Your task to perform on an android device: What's the weather going to be tomorrow? Image 0: 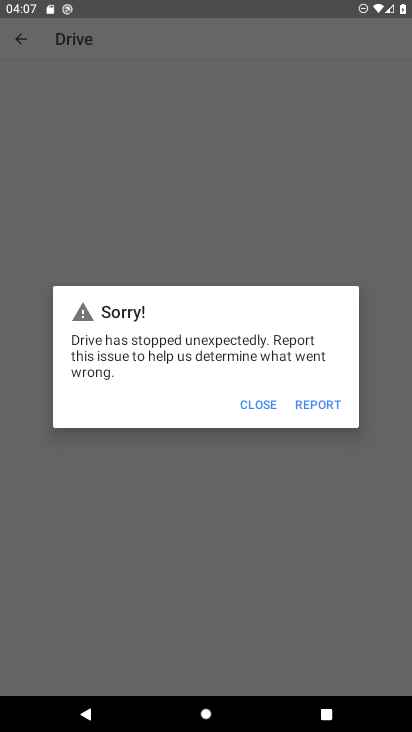
Step 0: press home button
Your task to perform on an android device: What's the weather going to be tomorrow? Image 1: 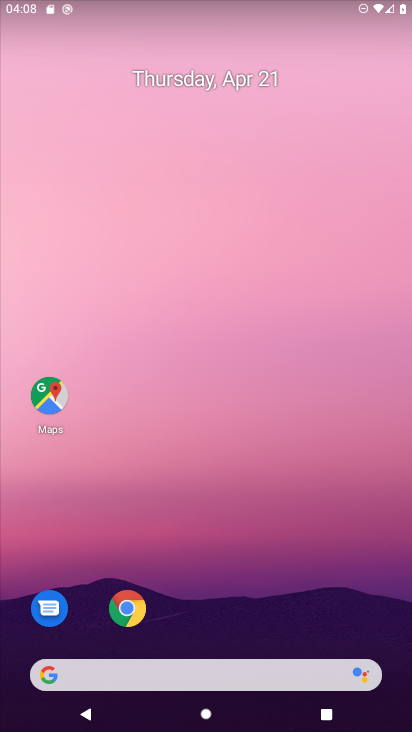
Step 1: drag from (253, 264) to (281, 41)
Your task to perform on an android device: What's the weather going to be tomorrow? Image 2: 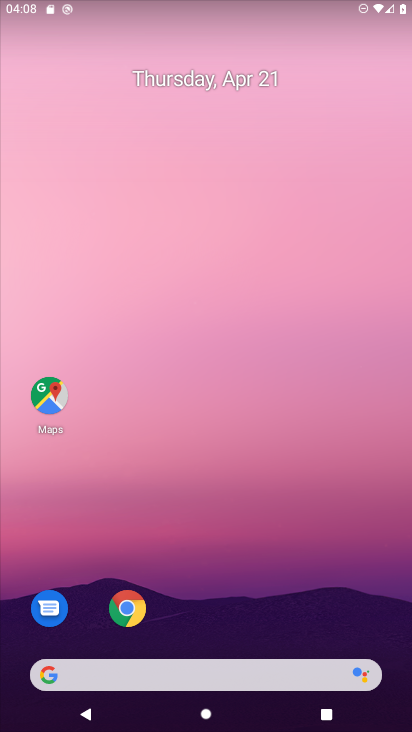
Step 2: drag from (222, 596) to (245, 243)
Your task to perform on an android device: What's the weather going to be tomorrow? Image 3: 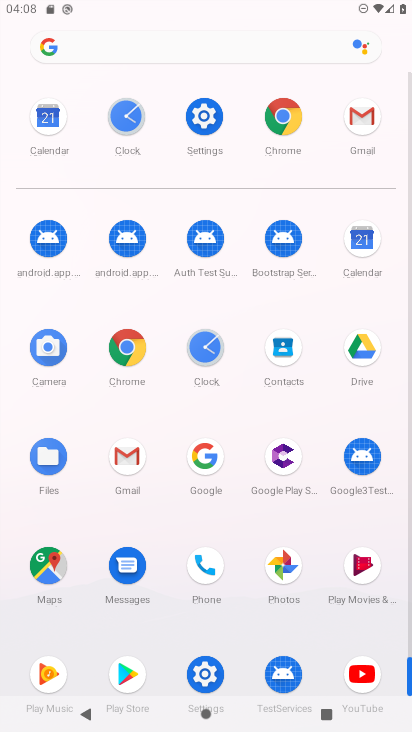
Step 3: click (133, 349)
Your task to perform on an android device: What's the weather going to be tomorrow? Image 4: 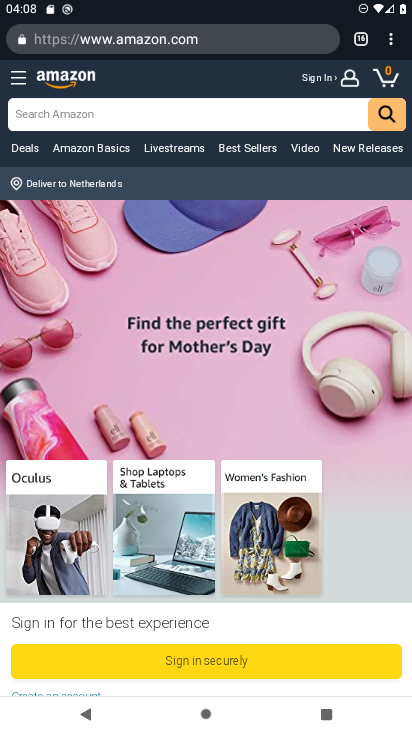
Step 4: click (383, 36)
Your task to perform on an android device: What's the weather going to be tomorrow? Image 5: 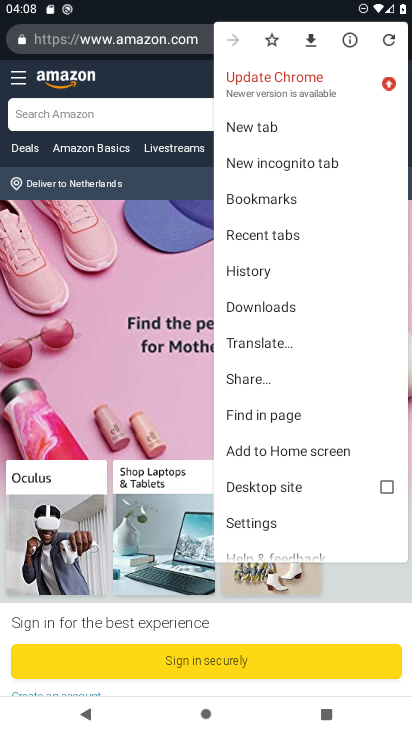
Step 5: click (289, 123)
Your task to perform on an android device: What's the weather going to be tomorrow? Image 6: 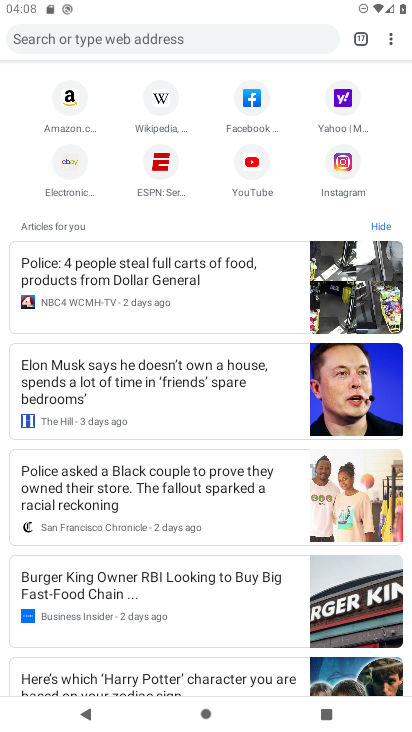
Step 6: click (211, 33)
Your task to perform on an android device: What's the weather going to be tomorrow? Image 7: 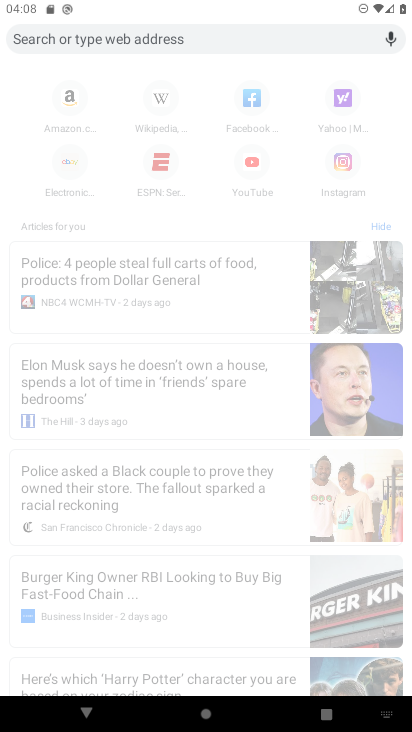
Step 7: type "What's the weather going to be tomorrow?"
Your task to perform on an android device: What's the weather going to be tomorrow? Image 8: 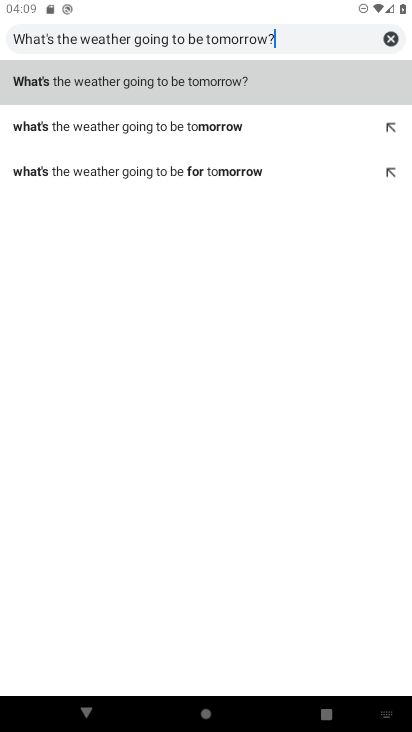
Step 8: click (243, 87)
Your task to perform on an android device: What's the weather going to be tomorrow? Image 9: 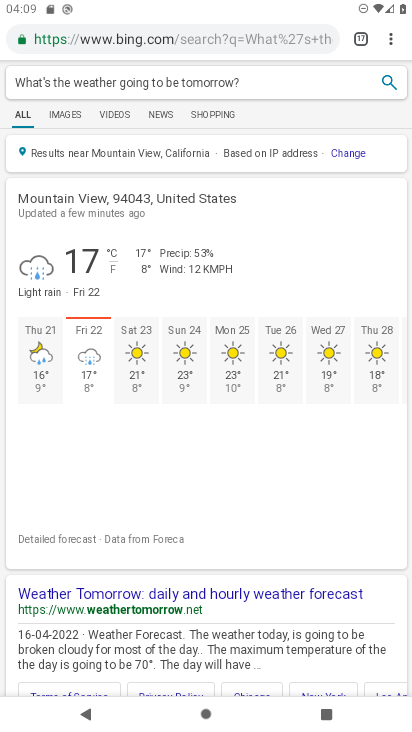
Step 9: task complete